Your task to perform on an android device: turn vacation reply on in the gmail app Image 0: 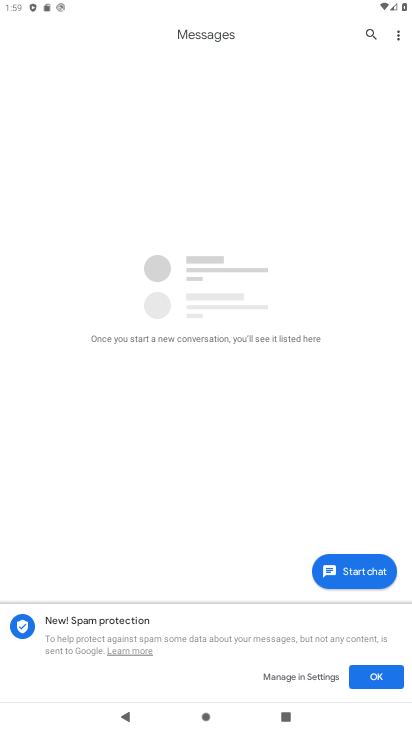
Step 0: press home button
Your task to perform on an android device: turn vacation reply on in the gmail app Image 1: 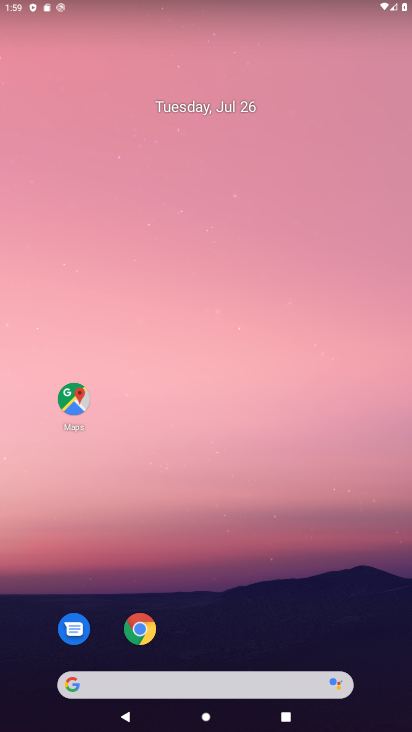
Step 1: drag from (254, 606) to (249, 241)
Your task to perform on an android device: turn vacation reply on in the gmail app Image 2: 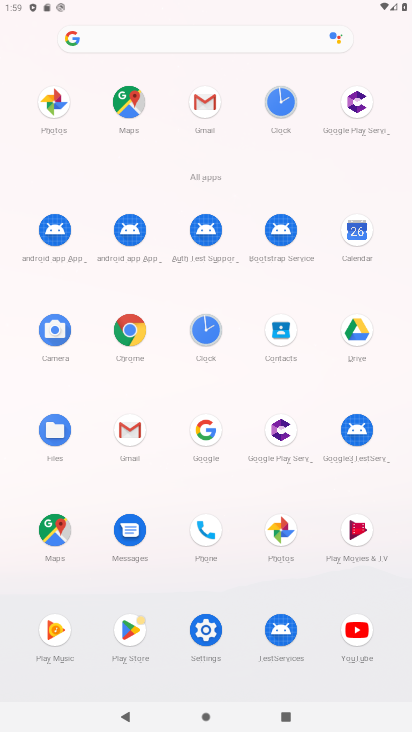
Step 2: click (205, 119)
Your task to perform on an android device: turn vacation reply on in the gmail app Image 3: 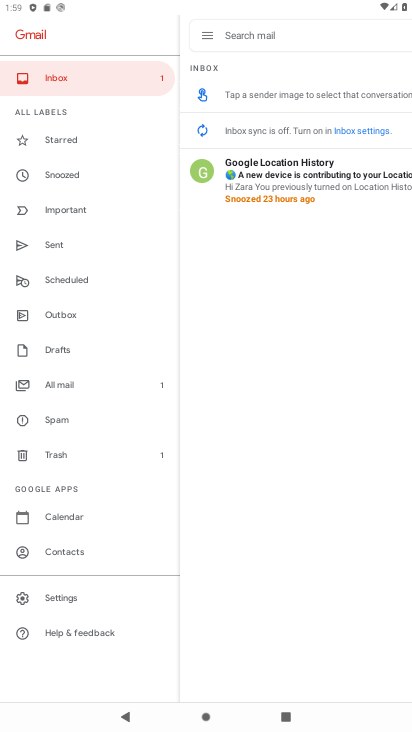
Step 3: click (103, 602)
Your task to perform on an android device: turn vacation reply on in the gmail app Image 4: 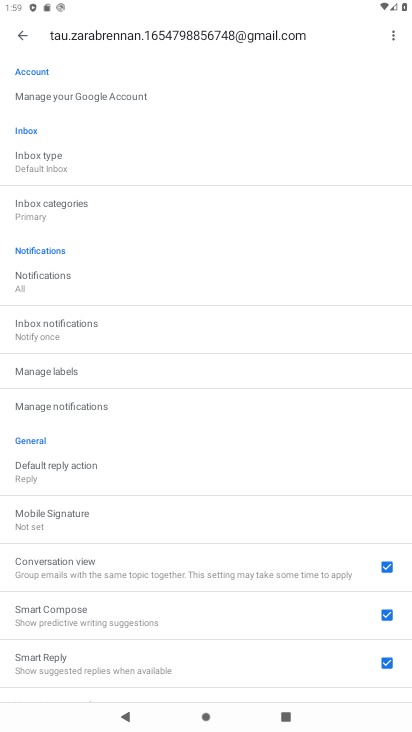
Step 4: drag from (126, 624) to (90, 354)
Your task to perform on an android device: turn vacation reply on in the gmail app Image 5: 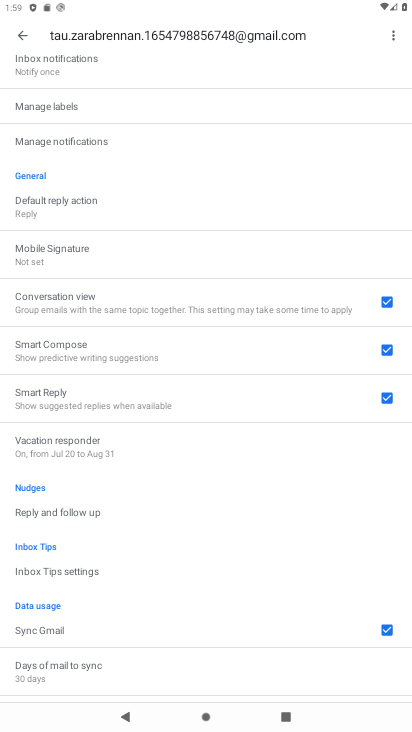
Step 5: click (52, 449)
Your task to perform on an android device: turn vacation reply on in the gmail app Image 6: 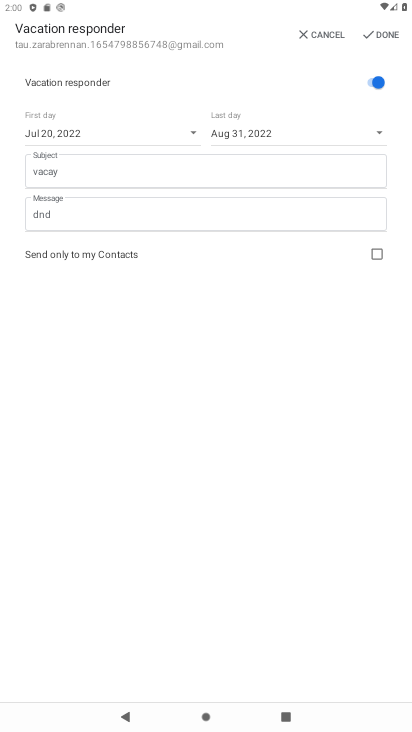
Step 6: click (371, 31)
Your task to perform on an android device: turn vacation reply on in the gmail app Image 7: 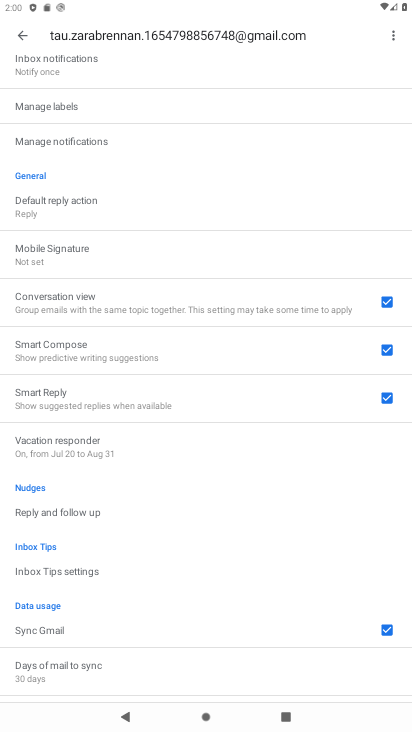
Step 7: task complete